Your task to perform on an android device: Open Google Image 0: 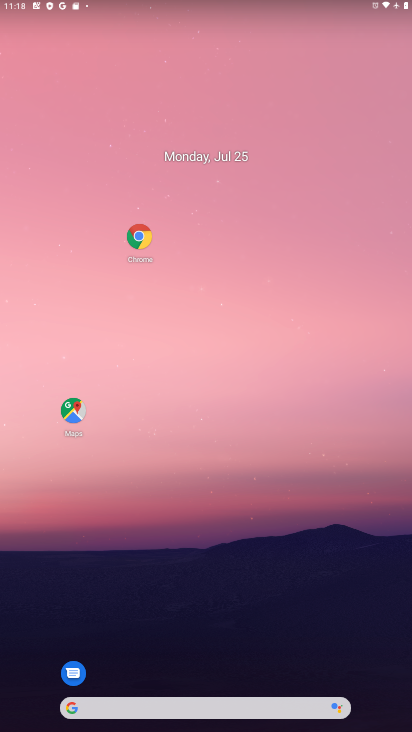
Step 0: click (250, 702)
Your task to perform on an android device: Open Google Image 1: 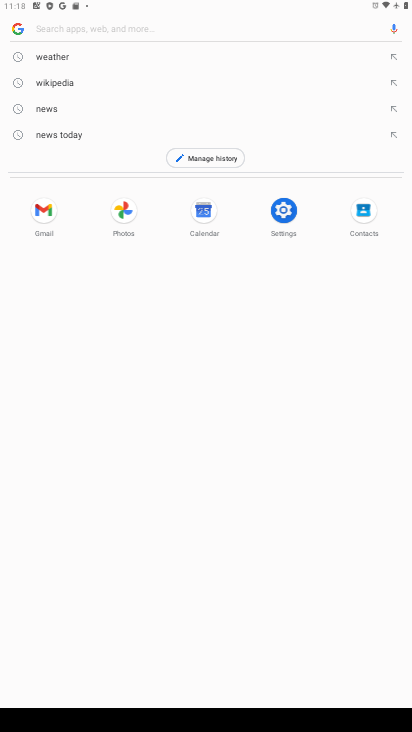
Step 1: type "google.com"
Your task to perform on an android device: Open Google Image 2: 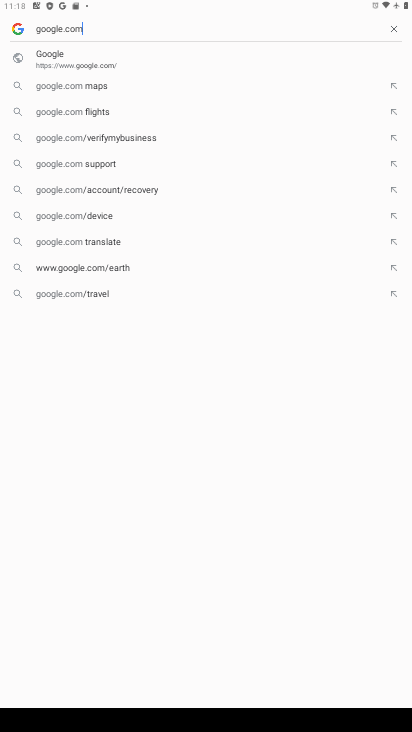
Step 2: click (173, 61)
Your task to perform on an android device: Open Google Image 3: 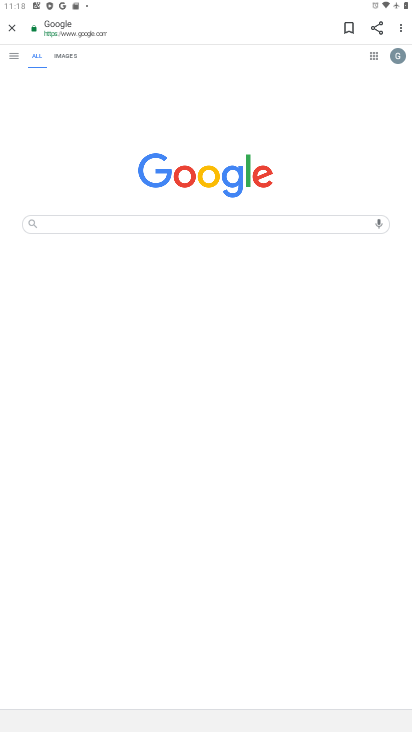
Step 3: task complete